Your task to perform on an android device: read, delete, or share a saved page in the chrome app Image 0: 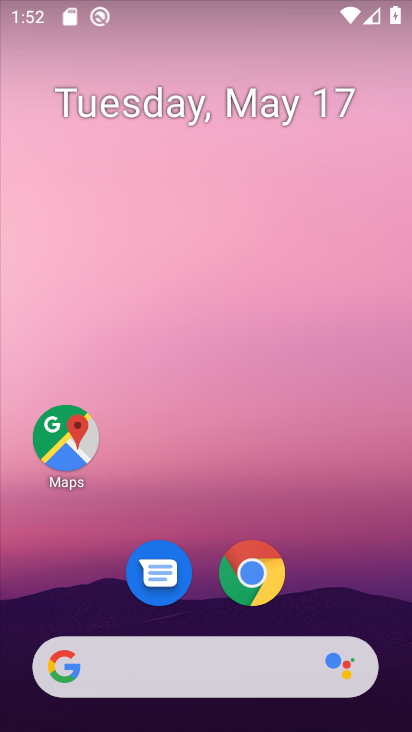
Step 0: click (262, 571)
Your task to perform on an android device: read, delete, or share a saved page in the chrome app Image 1: 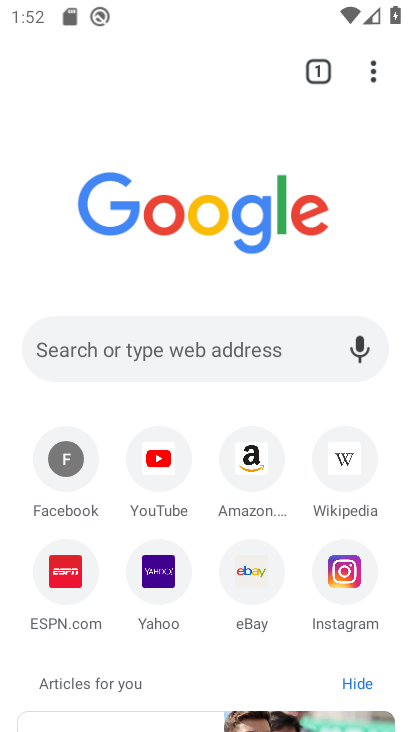
Step 1: click (372, 73)
Your task to perform on an android device: read, delete, or share a saved page in the chrome app Image 2: 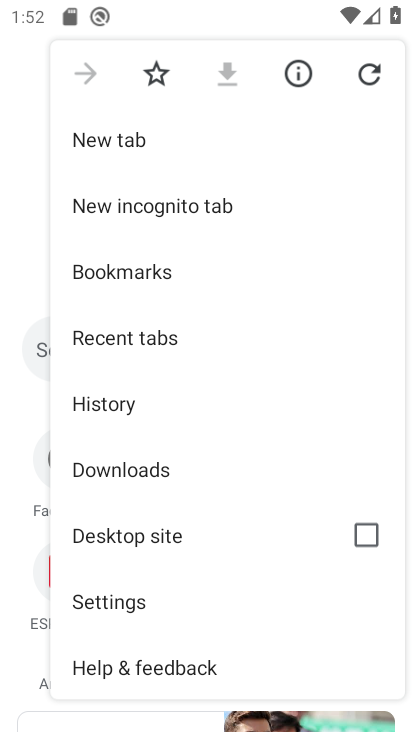
Step 2: click (136, 466)
Your task to perform on an android device: read, delete, or share a saved page in the chrome app Image 3: 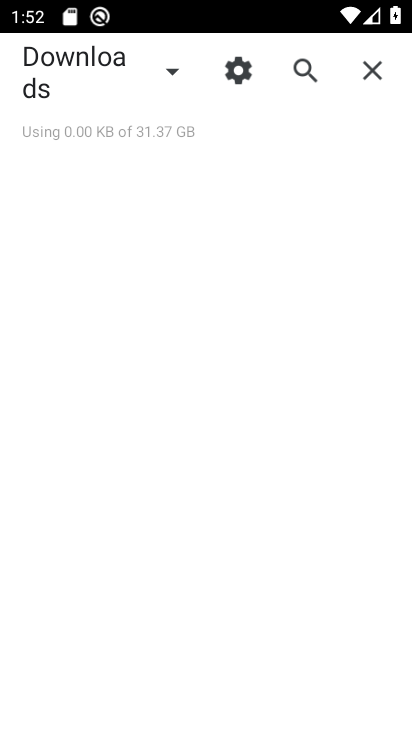
Step 3: task complete